Your task to perform on an android device: turn off notifications settings in the gmail app Image 0: 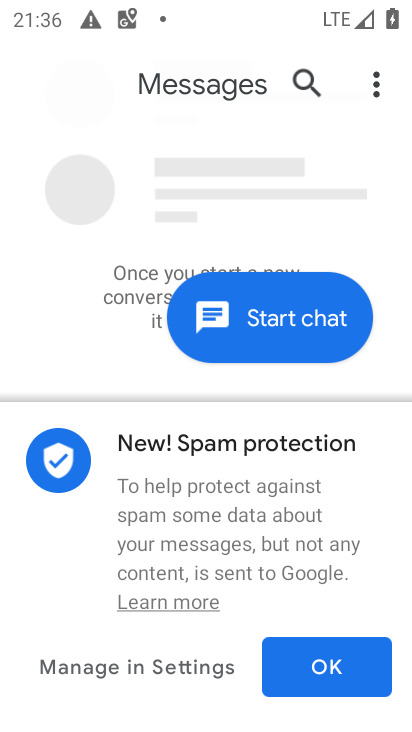
Step 0: press back button
Your task to perform on an android device: turn off notifications settings in the gmail app Image 1: 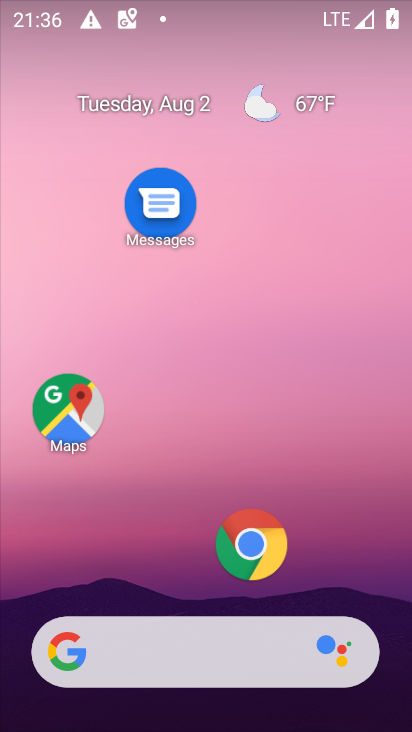
Step 1: drag from (169, 540) to (169, 154)
Your task to perform on an android device: turn off notifications settings in the gmail app Image 2: 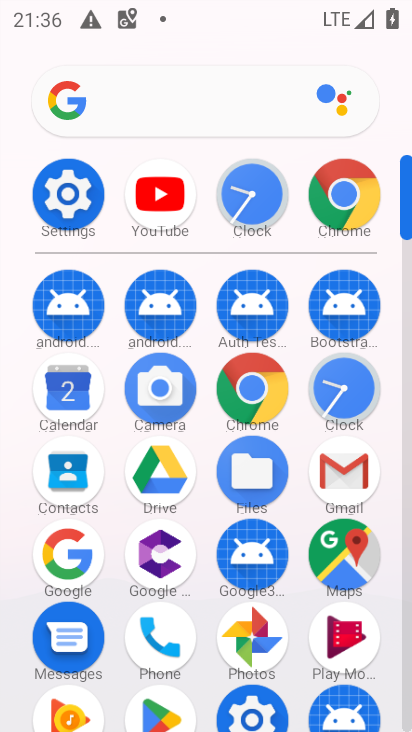
Step 2: click (327, 484)
Your task to perform on an android device: turn off notifications settings in the gmail app Image 3: 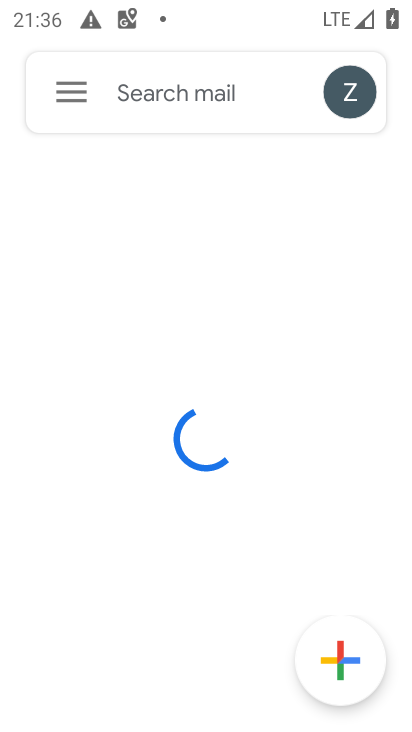
Step 3: click (77, 98)
Your task to perform on an android device: turn off notifications settings in the gmail app Image 4: 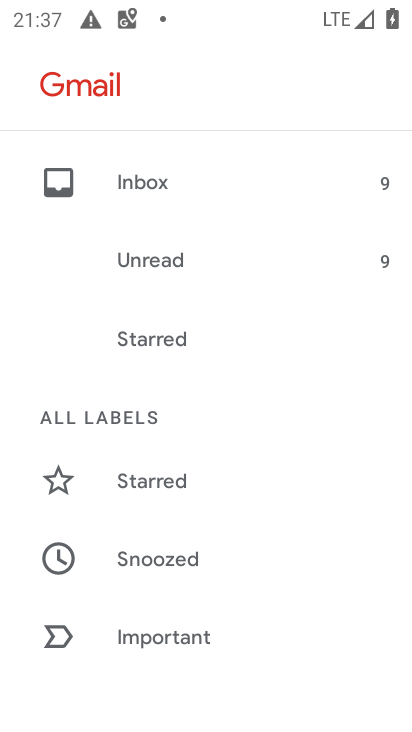
Step 4: drag from (183, 622) to (244, 201)
Your task to perform on an android device: turn off notifications settings in the gmail app Image 5: 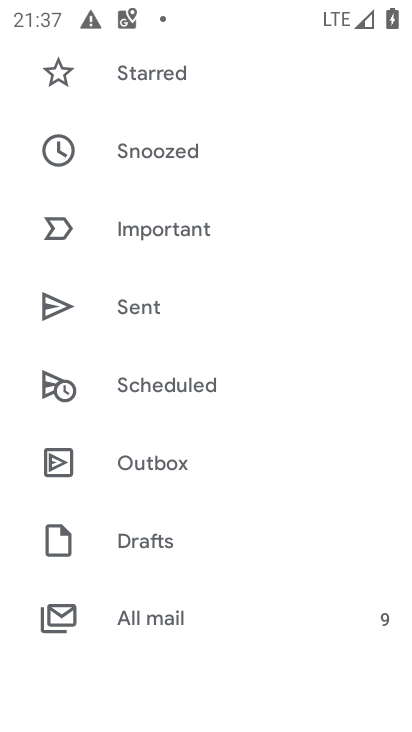
Step 5: drag from (222, 582) to (235, 229)
Your task to perform on an android device: turn off notifications settings in the gmail app Image 6: 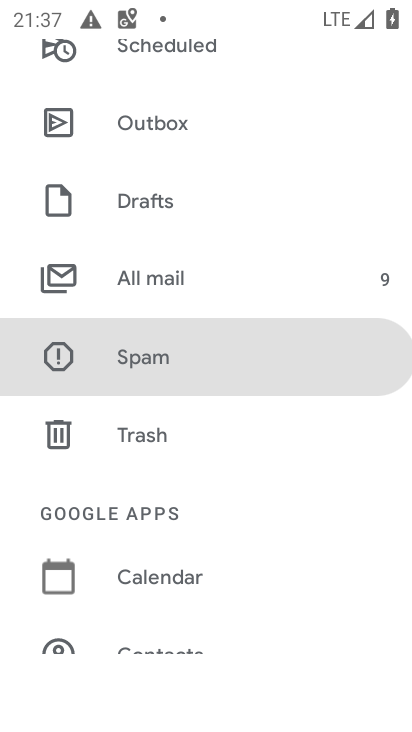
Step 6: drag from (235, 511) to (254, 234)
Your task to perform on an android device: turn off notifications settings in the gmail app Image 7: 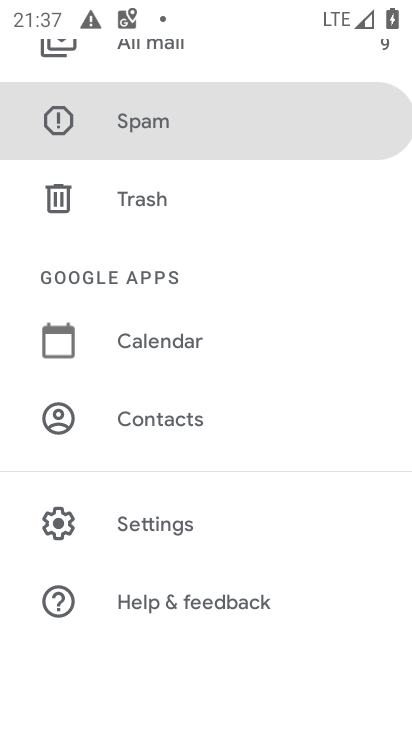
Step 7: click (170, 537)
Your task to perform on an android device: turn off notifications settings in the gmail app Image 8: 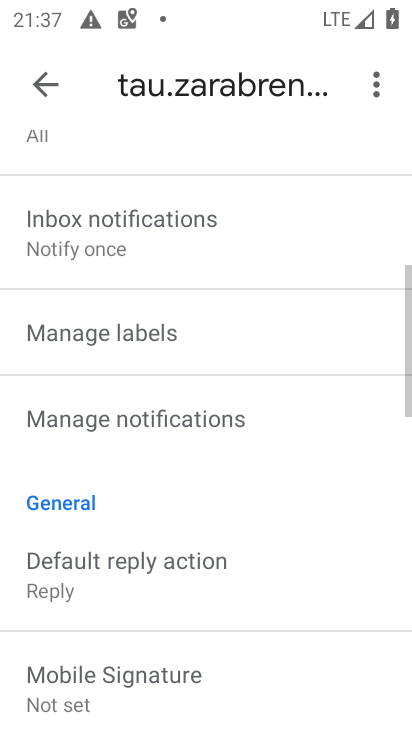
Step 8: click (164, 424)
Your task to perform on an android device: turn off notifications settings in the gmail app Image 9: 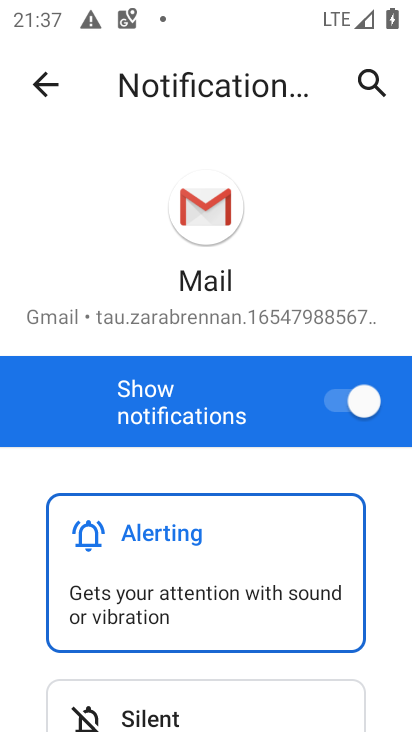
Step 9: click (327, 402)
Your task to perform on an android device: turn off notifications settings in the gmail app Image 10: 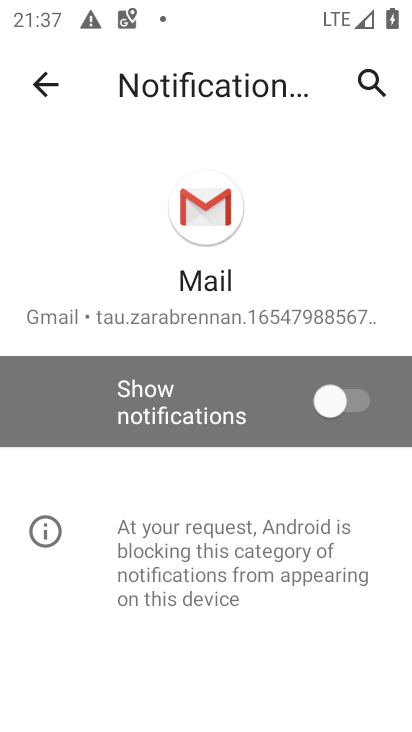
Step 10: task complete